Your task to perform on an android device: open a new tab in the chrome app Image 0: 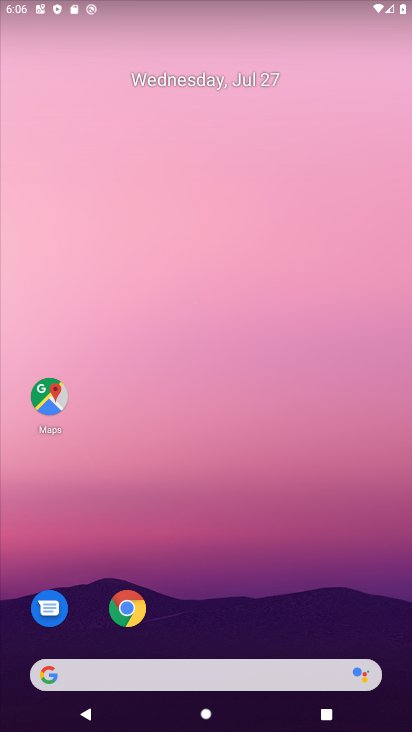
Step 0: press home button
Your task to perform on an android device: open a new tab in the chrome app Image 1: 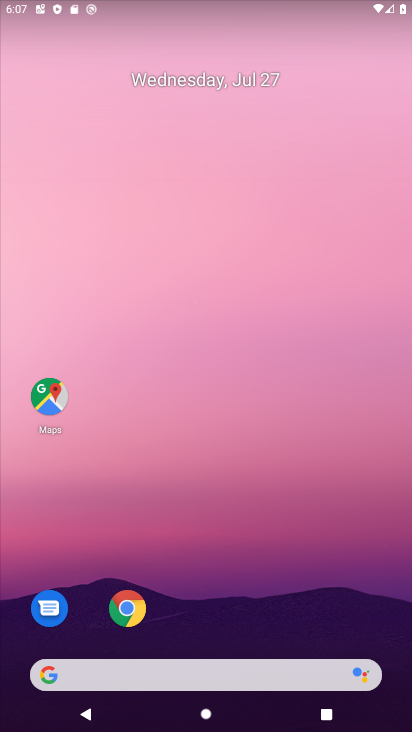
Step 1: click (117, 617)
Your task to perform on an android device: open a new tab in the chrome app Image 2: 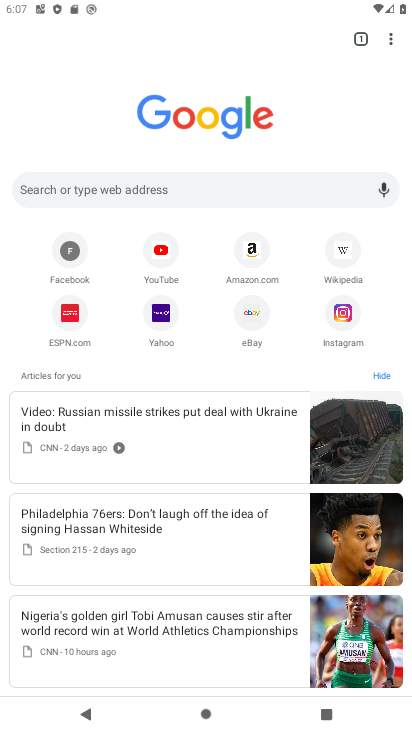
Step 2: click (361, 37)
Your task to perform on an android device: open a new tab in the chrome app Image 3: 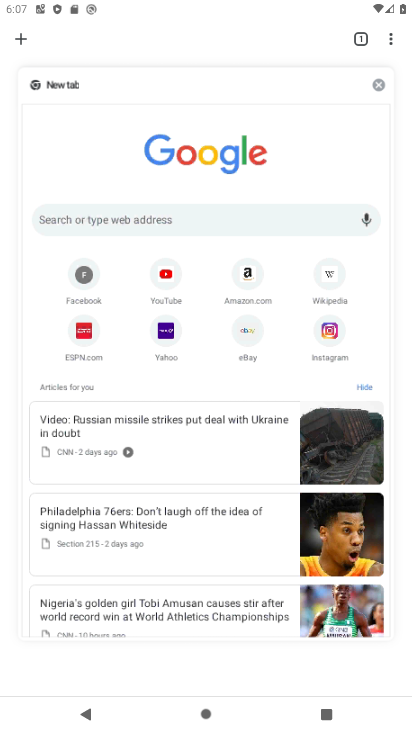
Step 3: click (20, 37)
Your task to perform on an android device: open a new tab in the chrome app Image 4: 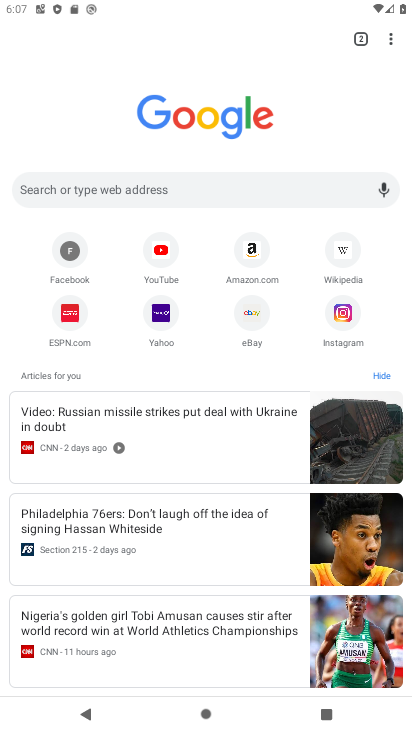
Step 4: task complete